Your task to perform on an android device: clear all cookies in the chrome app Image 0: 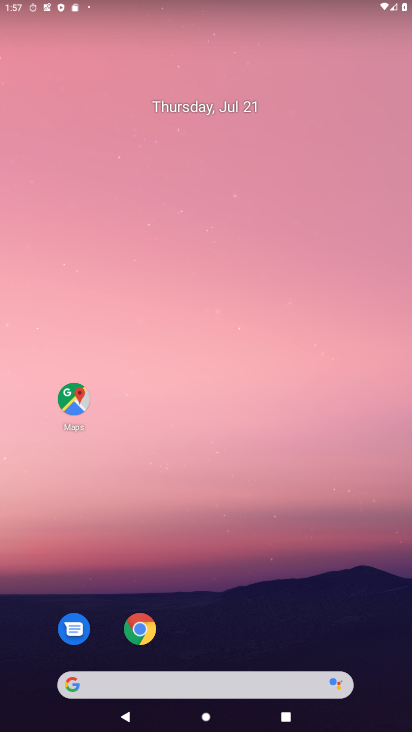
Step 0: click (137, 619)
Your task to perform on an android device: clear all cookies in the chrome app Image 1: 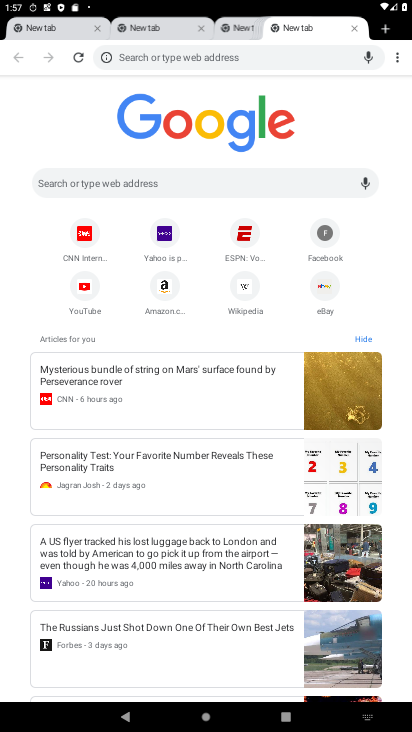
Step 1: click (401, 51)
Your task to perform on an android device: clear all cookies in the chrome app Image 2: 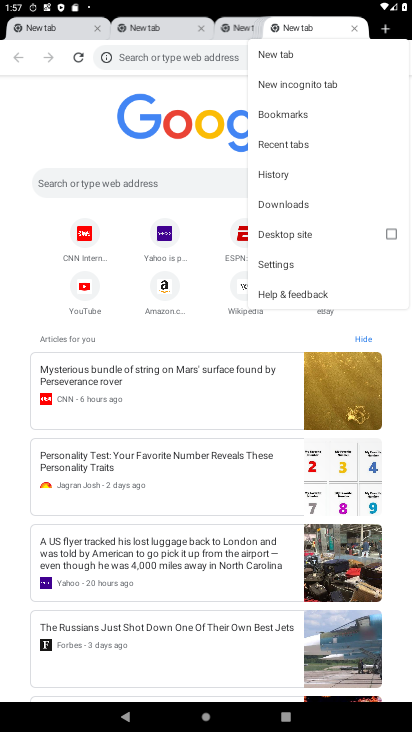
Step 2: click (285, 178)
Your task to perform on an android device: clear all cookies in the chrome app Image 3: 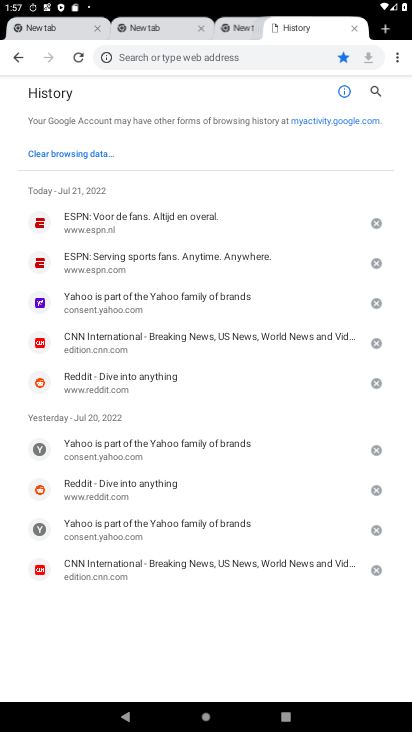
Step 3: click (90, 150)
Your task to perform on an android device: clear all cookies in the chrome app Image 4: 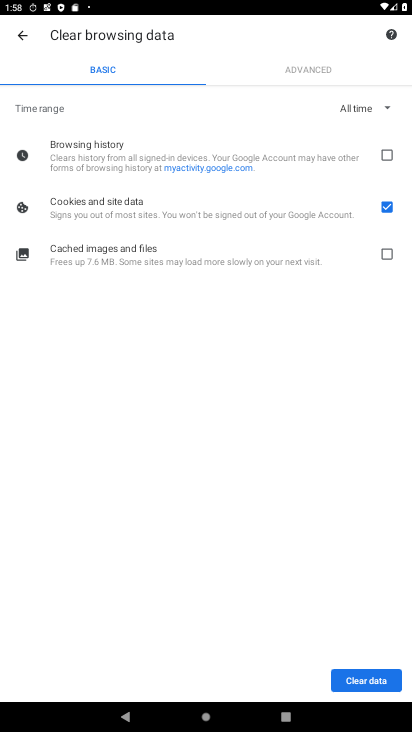
Step 4: click (356, 673)
Your task to perform on an android device: clear all cookies in the chrome app Image 5: 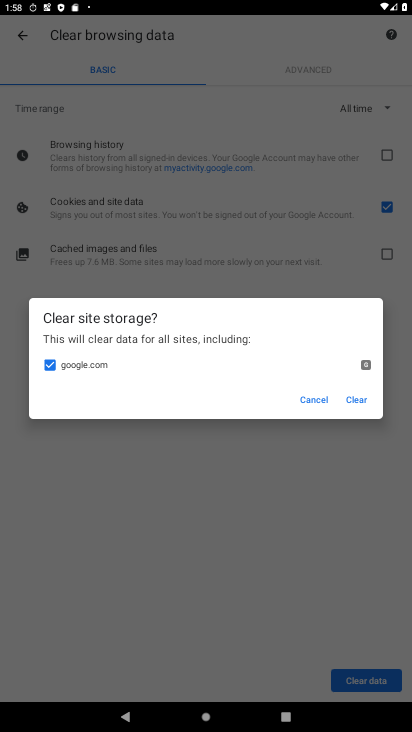
Step 5: click (361, 404)
Your task to perform on an android device: clear all cookies in the chrome app Image 6: 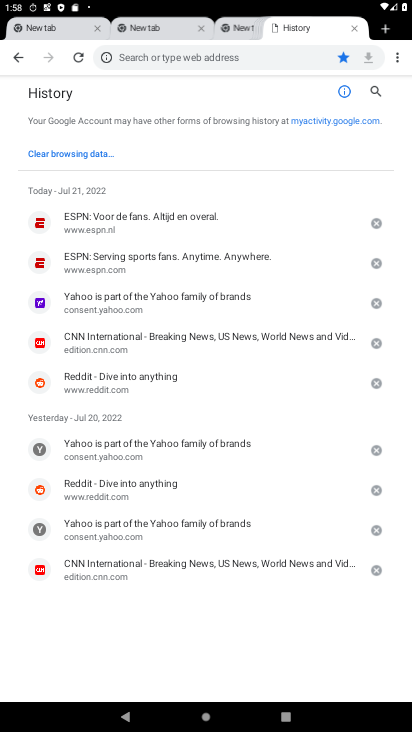
Step 6: task complete